Your task to perform on an android device: change alarm snooze length Image 0: 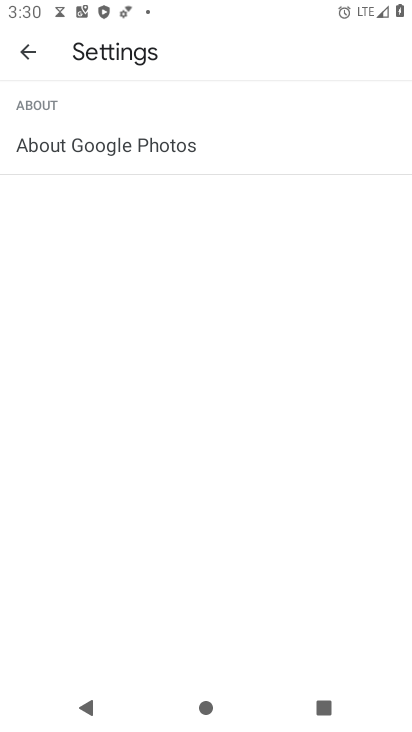
Step 0: press home button
Your task to perform on an android device: change alarm snooze length Image 1: 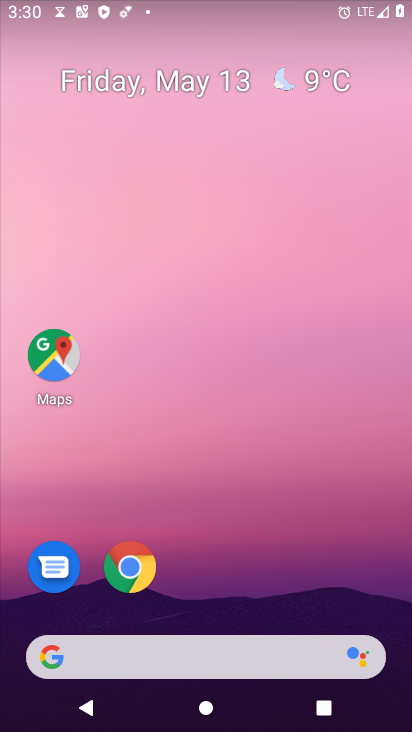
Step 1: drag from (277, 598) to (244, 1)
Your task to perform on an android device: change alarm snooze length Image 2: 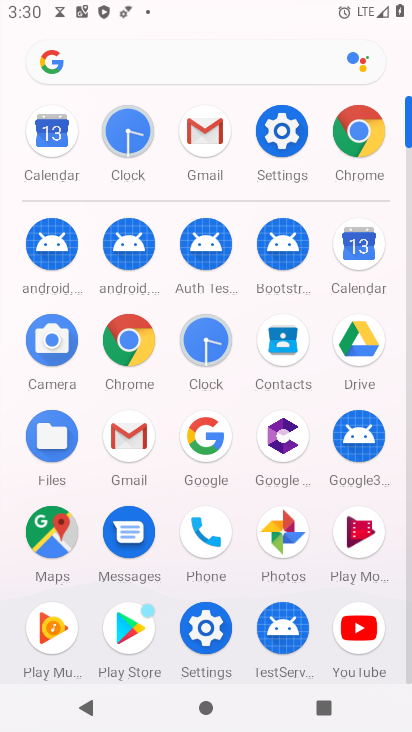
Step 2: click (123, 144)
Your task to perform on an android device: change alarm snooze length Image 3: 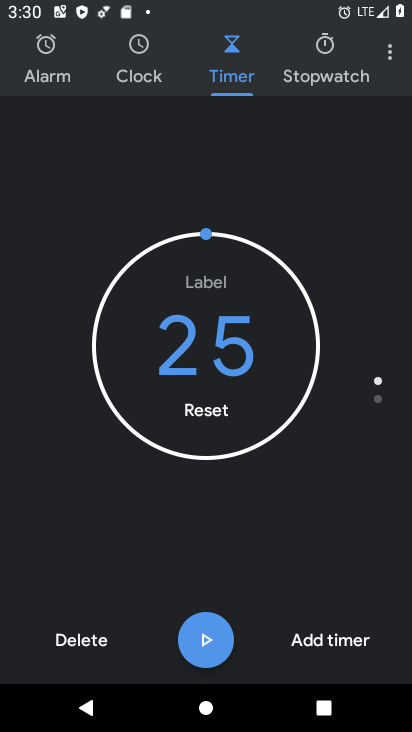
Step 3: click (391, 53)
Your task to perform on an android device: change alarm snooze length Image 4: 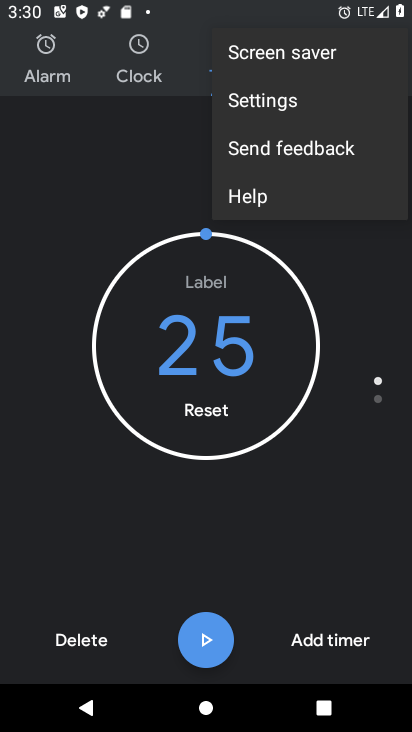
Step 4: click (282, 97)
Your task to perform on an android device: change alarm snooze length Image 5: 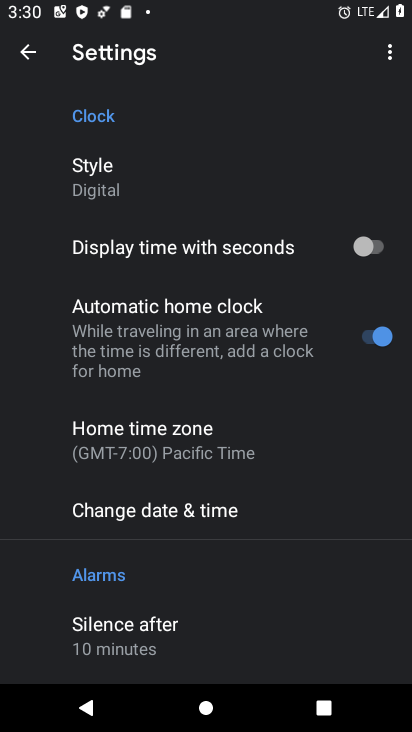
Step 5: drag from (180, 558) to (219, 149)
Your task to perform on an android device: change alarm snooze length Image 6: 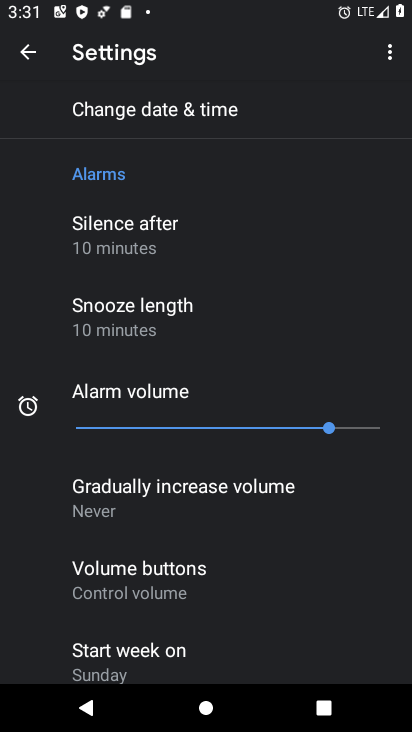
Step 6: click (99, 322)
Your task to perform on an android device: change alarm snooze length Image 7: 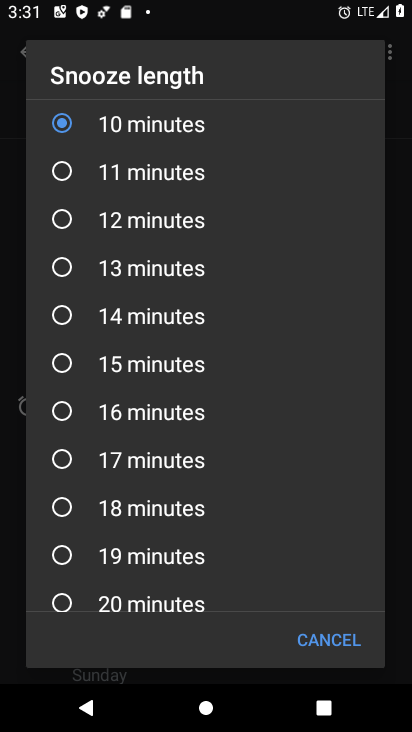
Step 7: click (68, 228)
Your task to perform on an android device: change alarm snooze length Image 8: 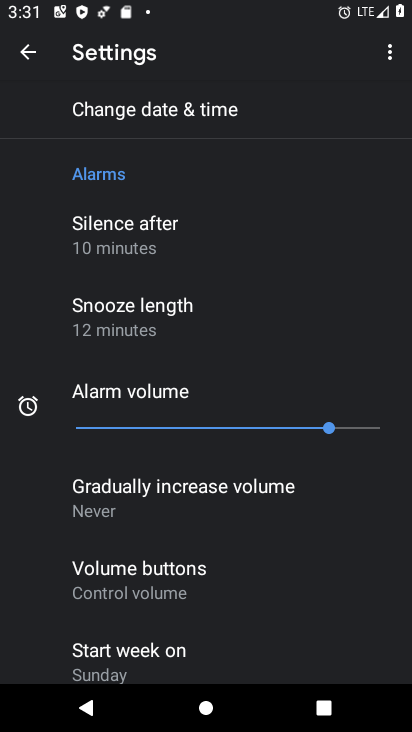
Step 8: task complete